Your task to perform on an android device: Set the phone to "Do not disturb". Image 0: 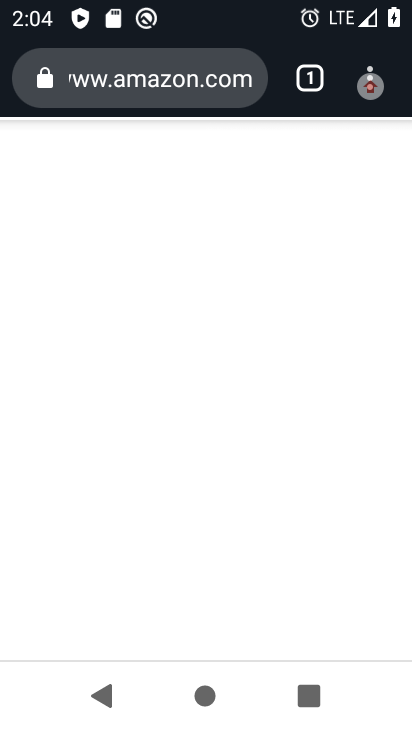
Step 0: press home button
Your task to perform on an android device: Set the phone to "Do not disturb". Image 1: 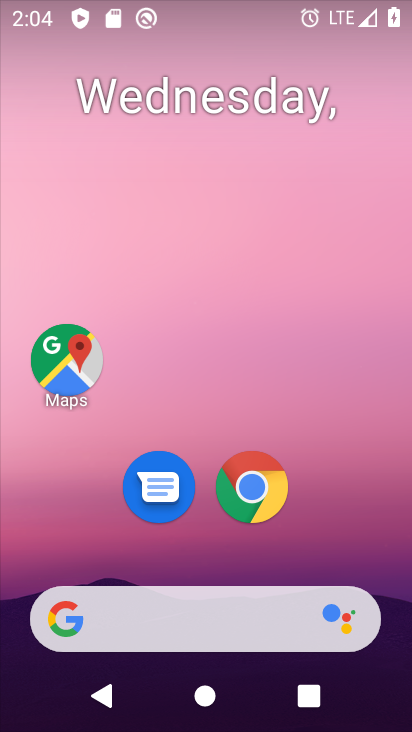
Step 1: drag from (390, 614) to (180, 34)
Your task to perform on an android device: Set the phone to "Do not disturb". Image 2: 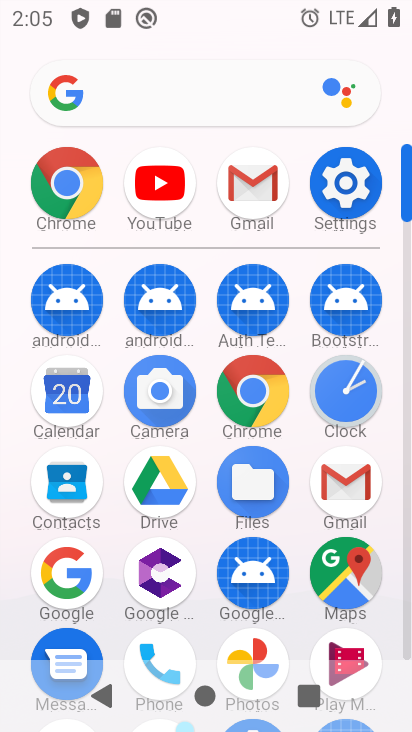
Step 2: drag from (198, 4) to (213, 580)
Your task to perform on an android device: Set the phone to "Do not disturb". Image 3: 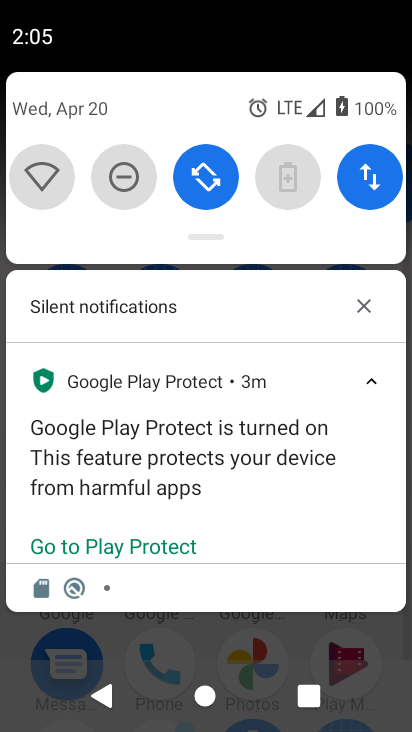
Step 3: click (130, 166)
Your task to perform on an android device: Set the phone to "Do not disturb". Image 4: 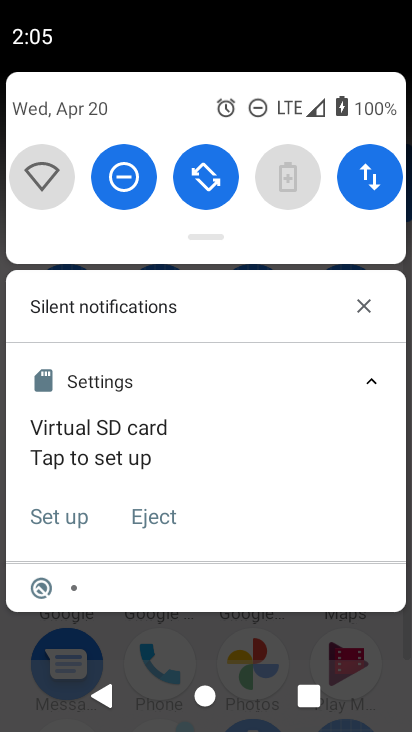
Step 4: task complete